Your task to perform on an android device: turn on bluetooth scan Image 0: 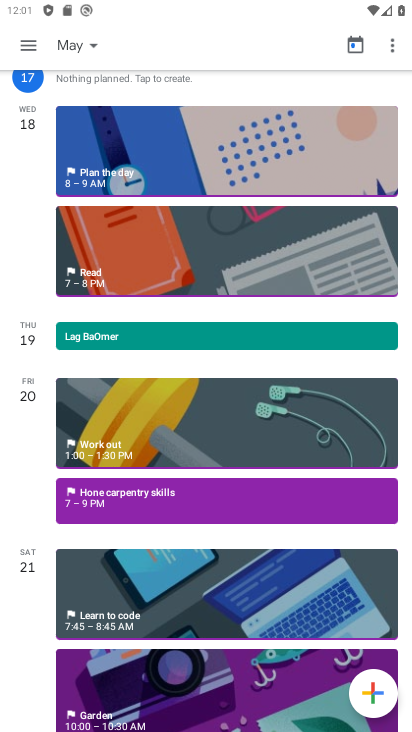
Step 0: press home button
Your task to perform on an android device: turn on bluetooth scan Image 1: 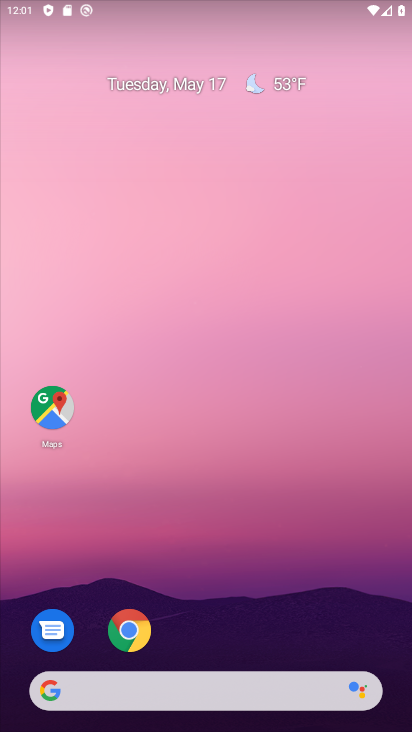
Step 1: drag from (223, 640) to (237, 322)
Your task to perform on an android device: turn on bluetooth scan Image 2: 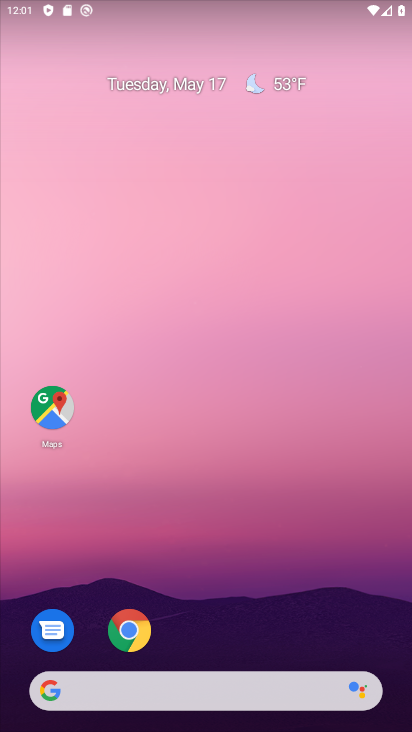
Step 2: drag from (229, 727) to (240, 297)
Your task to perform on an android device: turn on bluetooth scan Image 3: 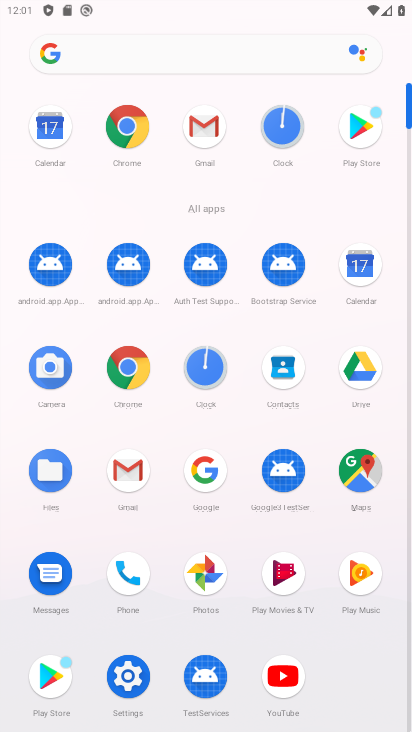
Step 3: click (124, 676)
Your task to perform on an android device: turn on bluetooth scan Image 4: 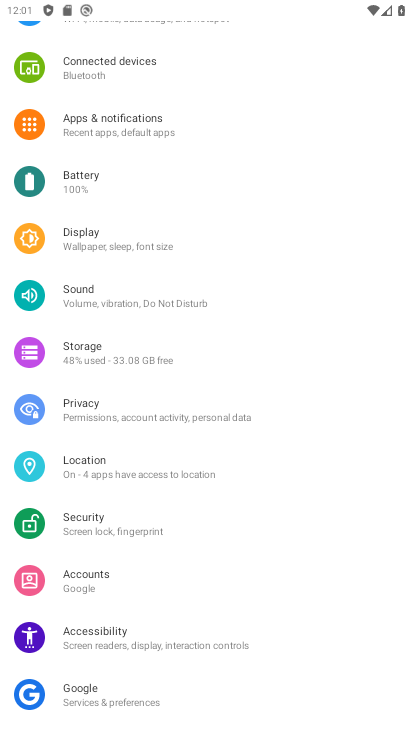
Step 4: drag from (155, 219) to (128, 450)
Your task to perform on an android device: turn on bluetooth scan Image 5: 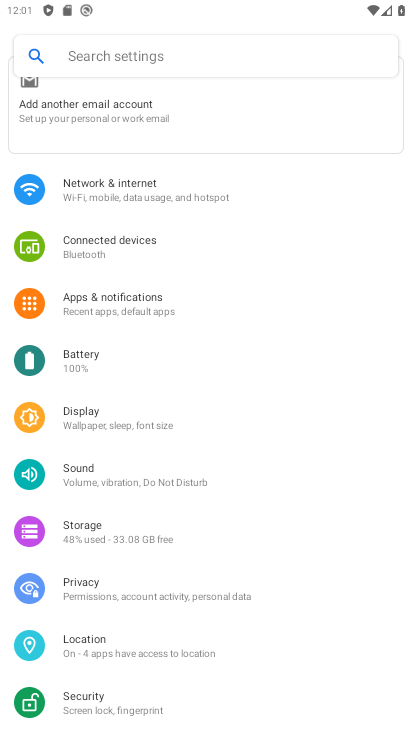
Step 5: click (123, 259)
Your task to perform on an android device: turn on bluetooth scan Image 6: 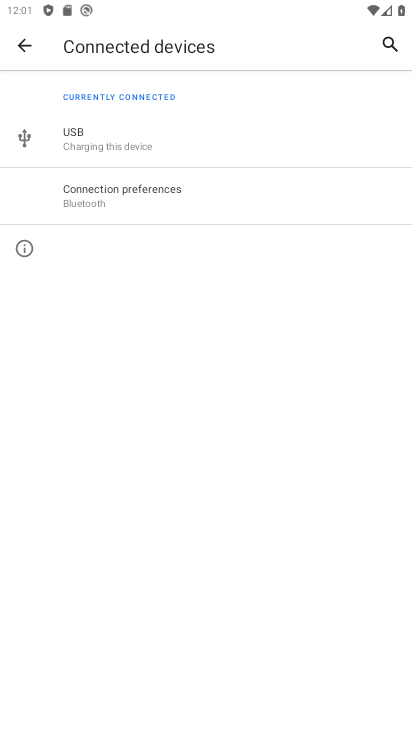
Step 6: click (150, 195)
Your task to perform on an android device: turn on bluetooth scan Image 7: 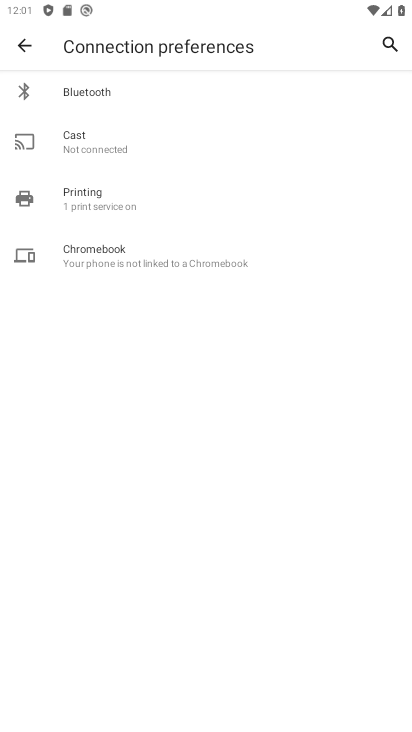
Step 7: click (241, 103)
Your task to perform on an android device: turn on bluetooth scan Image 8: 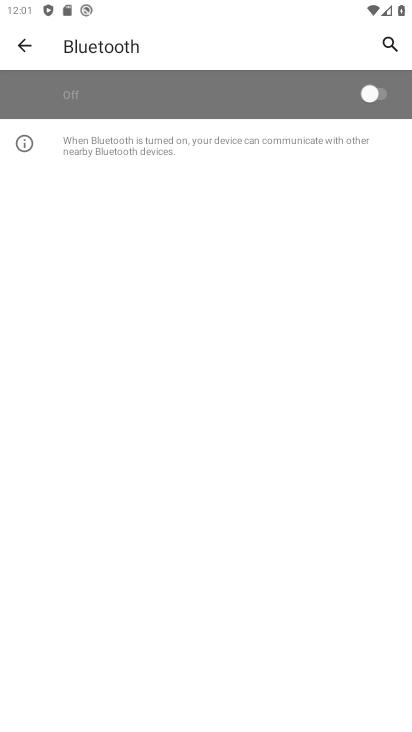
Step 8: click (336, 106)
Your task to perform on an android device: turn on bluetooth scan Image 9: 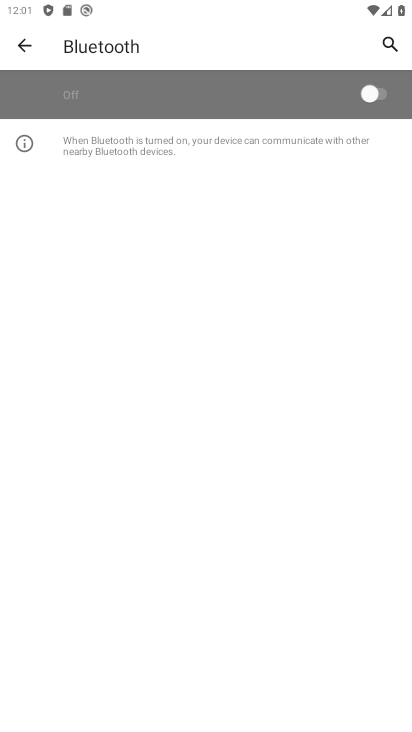
Step 9: click (336, 106)
Your task to perform on an android device: turn on bluetooth scan Image 10: 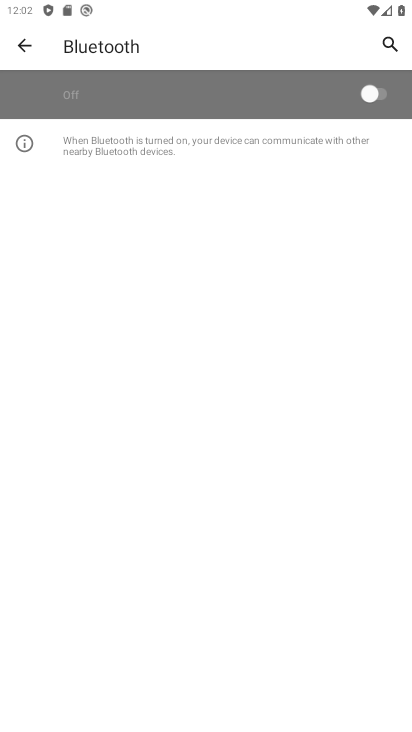
Step 10: task complete